Your task to perform on an android device: open app "Messenger Lite" (install if not already installed) and go to login screen Image 0: 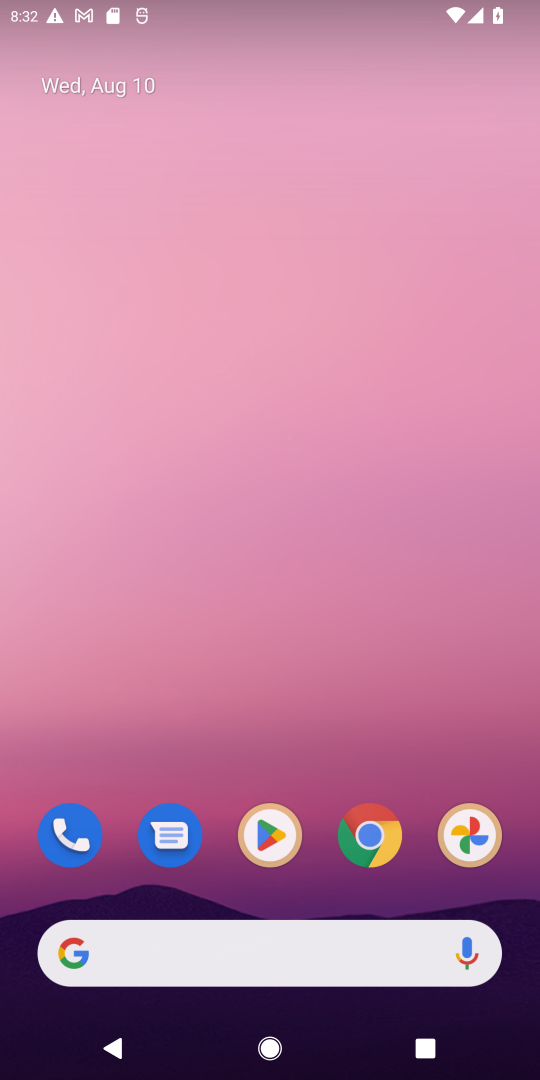
Step 0: press home button
Your task to perform on an android device: open app "Messenger Lite" (install if not already installed) and go to login screen Image 1: 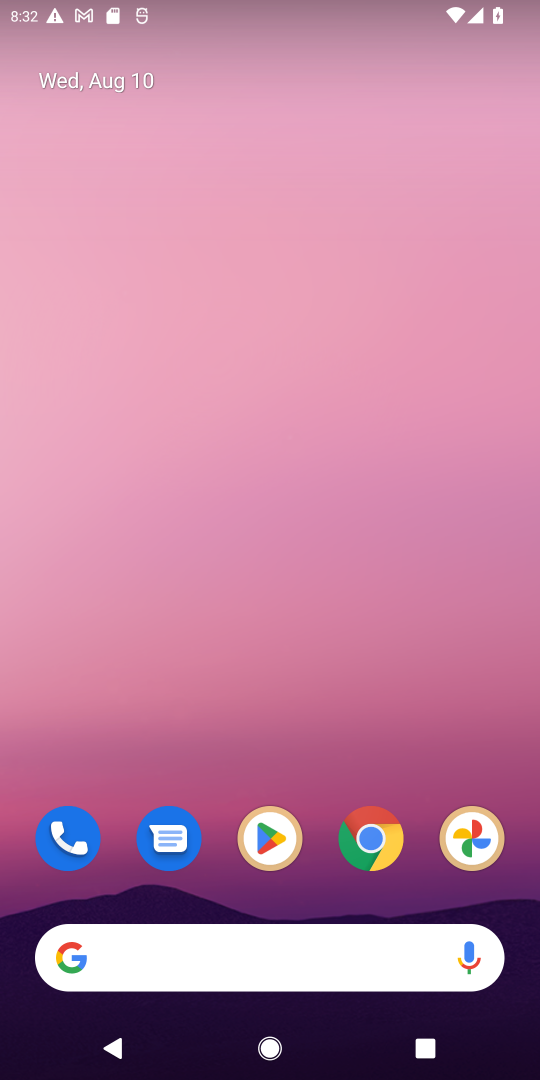
Step 1: drag from (306, 790) to (260, 4)
Your task to perform on an android device: open app "Messenger Lite" (install if not already installed) and go to login screen Image 2: 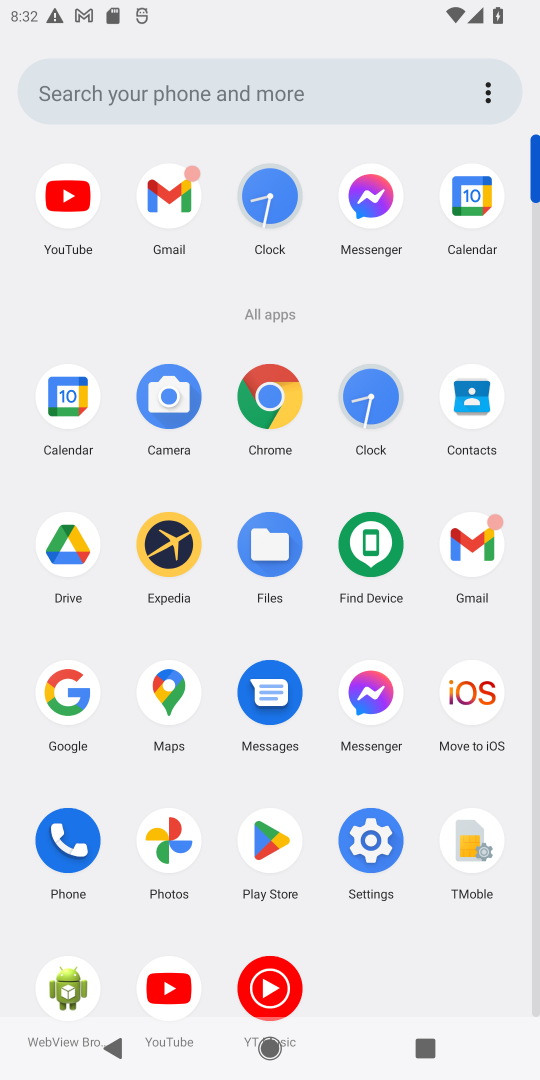
Step 2: click (270, 828)
Your task to perform on an android device: open app "Messenger Lite" (install if not already installed) and go to login screen Image 3: 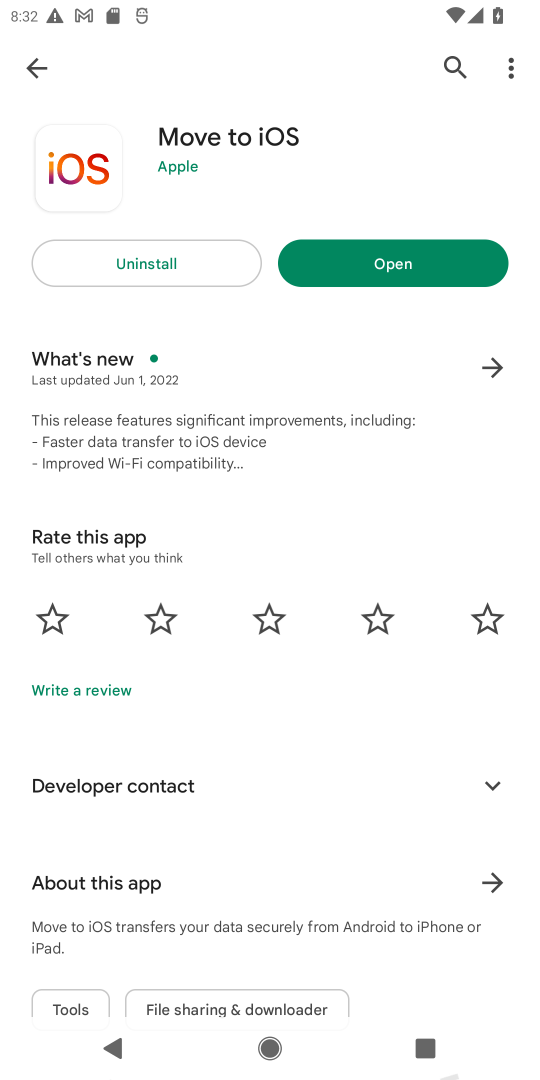
Step 3: click (452, 65)
Your task to perform on an android device: open app "Messenger Lite" (install if not already installed) and go to login screen Image 4: 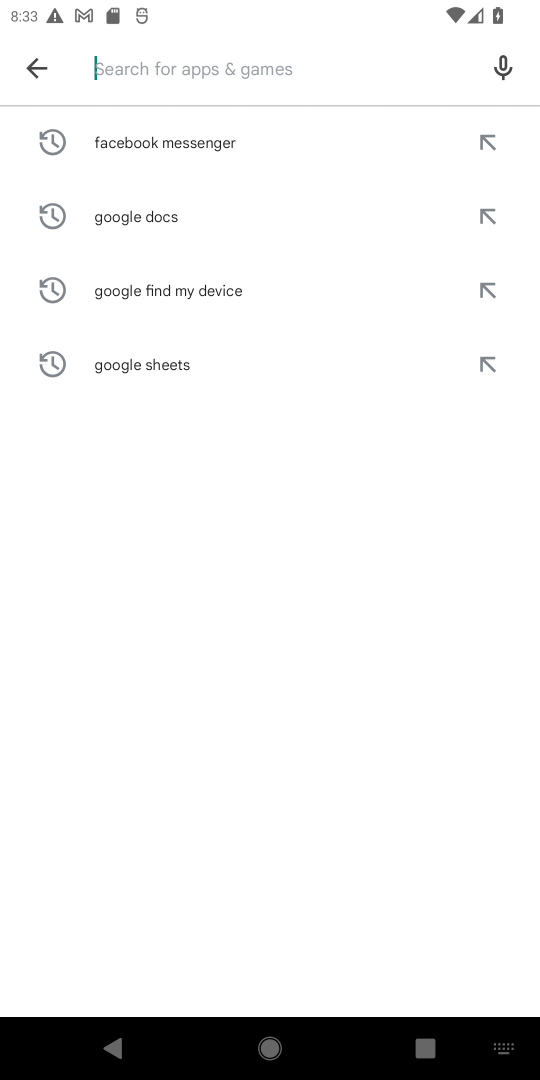
Step 4: type "Messenger Lite"
Your task to perform on an android device: open app "Messenger Lite" (install if not already installed) and go to login screen Image 5: 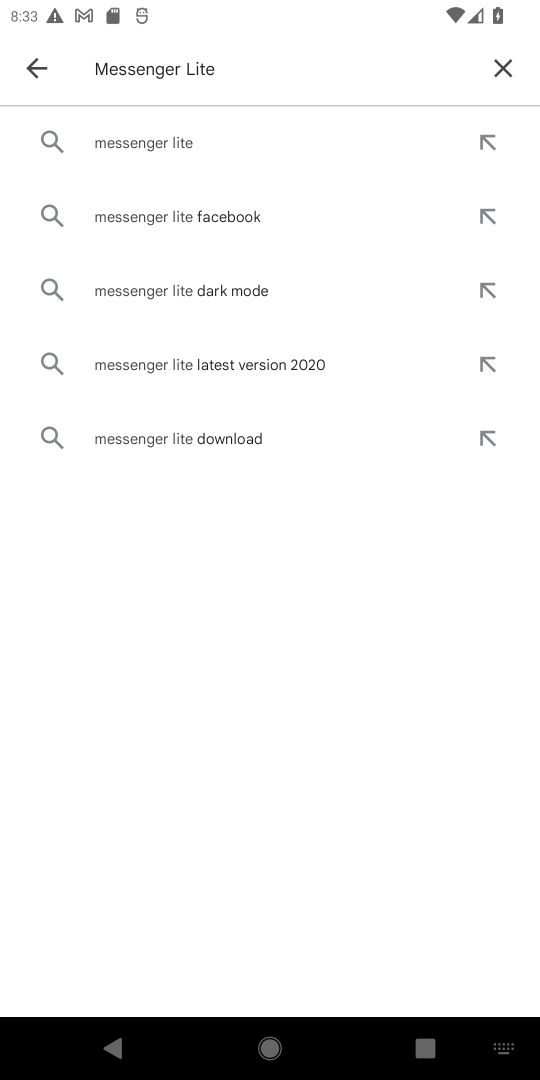
Step 5: click (208, 137)
Your task to perform on an android device: open app "Messenger Lite" (install if not already installed) and go to login screen Image 6: 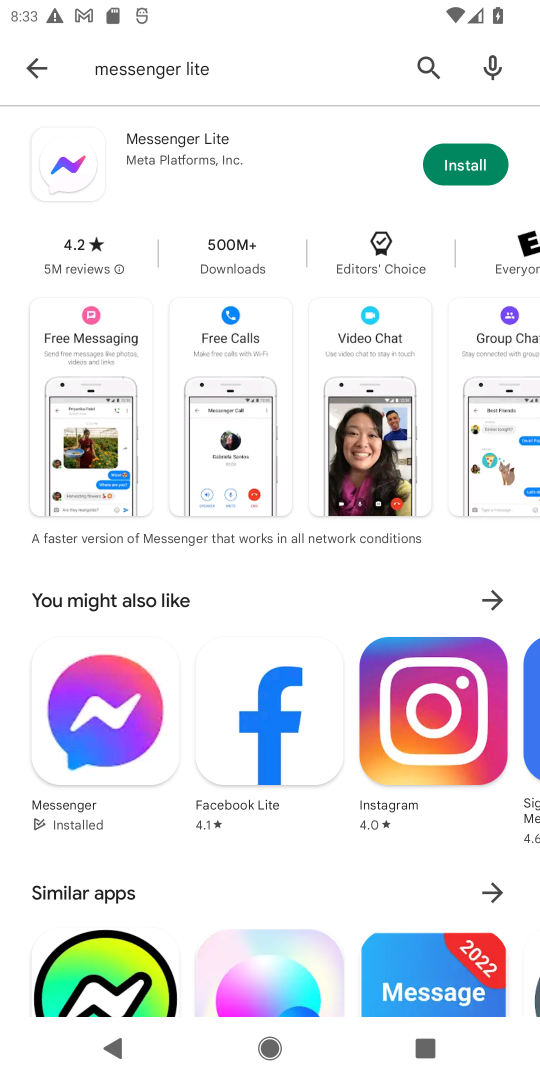
Step 6: click (461, 172)
Your task to perform on an android device: open app "Messenger Lite" (install if not already installed) and go to login screen Image 7: 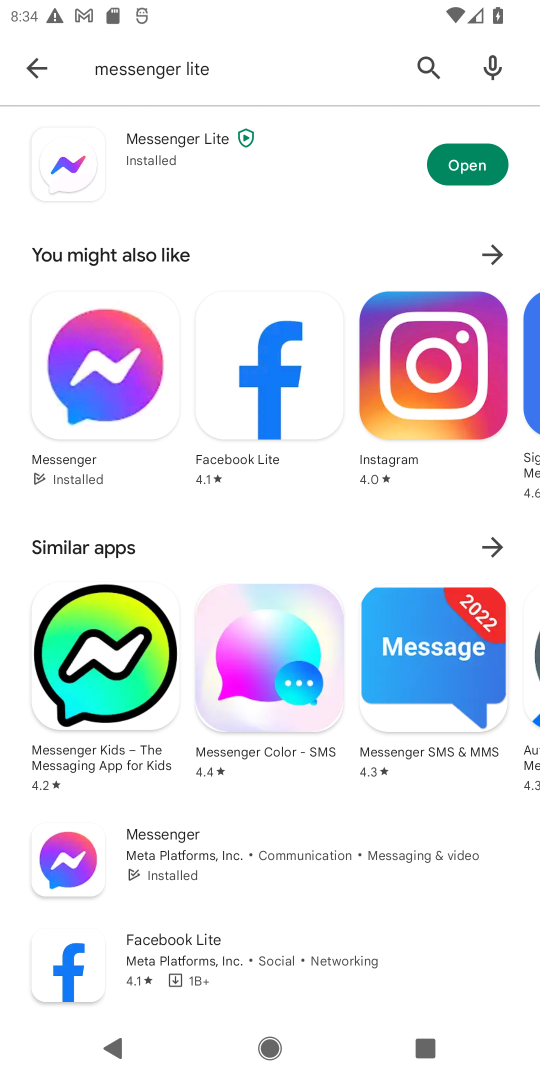
Step 7: click (465, 158)
Your task to perform on an android device: open app "Messenger Lite" (install if not already installed) and go to login screen Image 8: 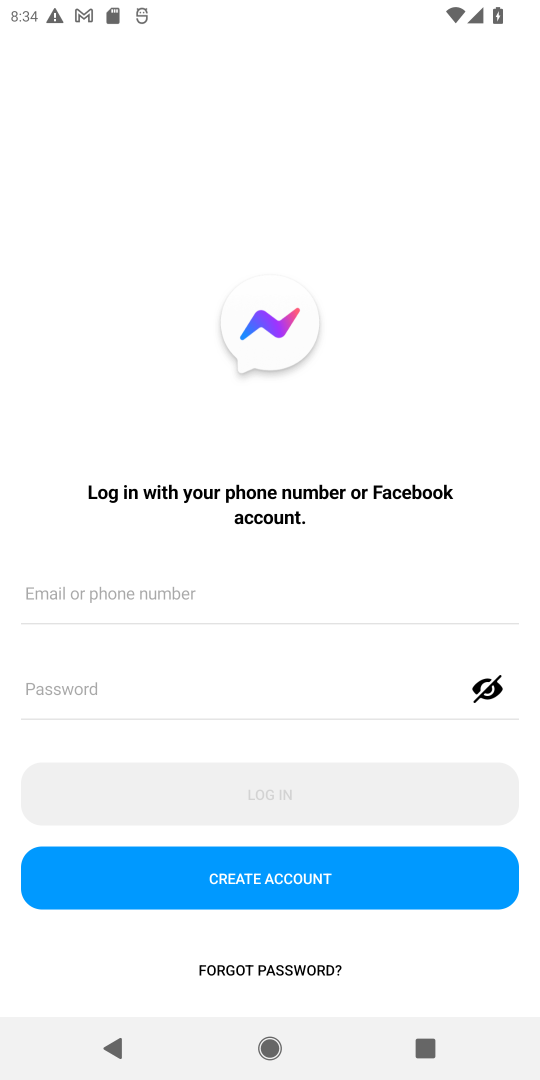
Step 8: task complete